Your task to perform on an android device: Open Yahoo.com Image 0: 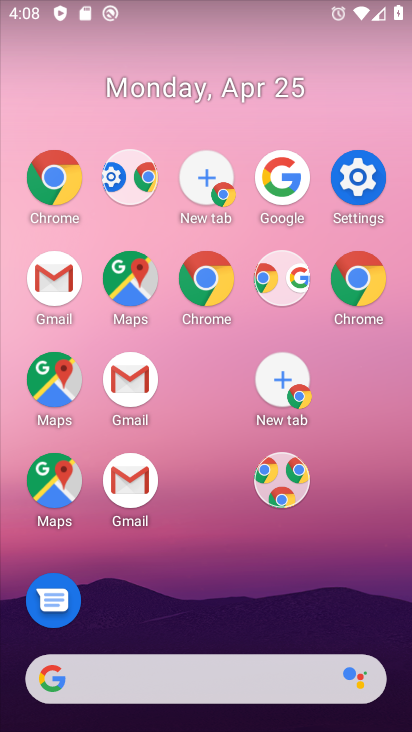
Step 0: click (212, 272)
Your task to perform on an android device: Open Yahoo.com Image 1: 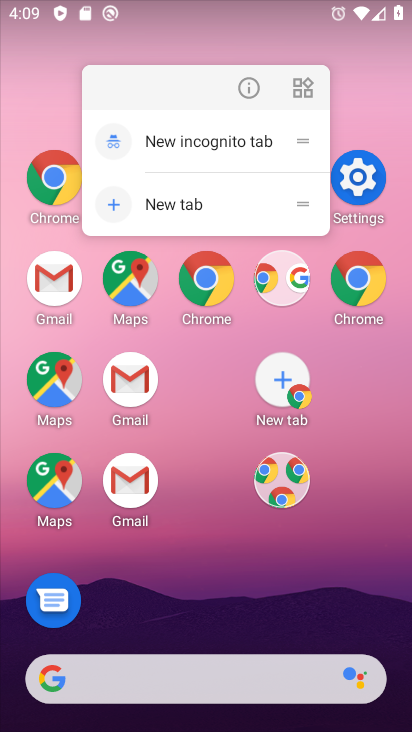
Step 1: click (96, 129)
Your task to perform on an android device: Open Yahoo.com Image 2: 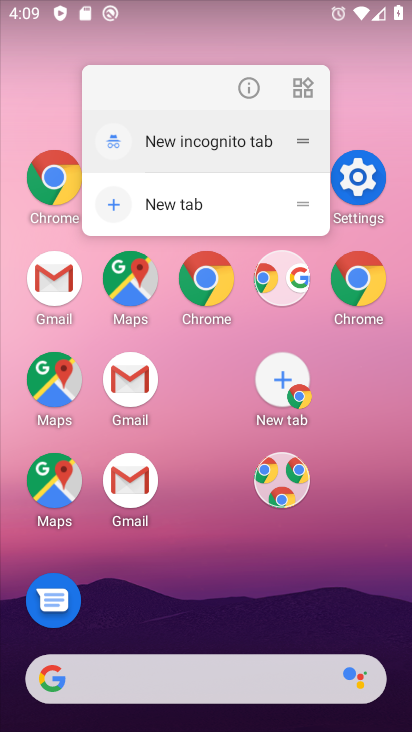
Step 2: click (152, 203)
Your task to perform on an android device: Open Yahoo.com Image 3: 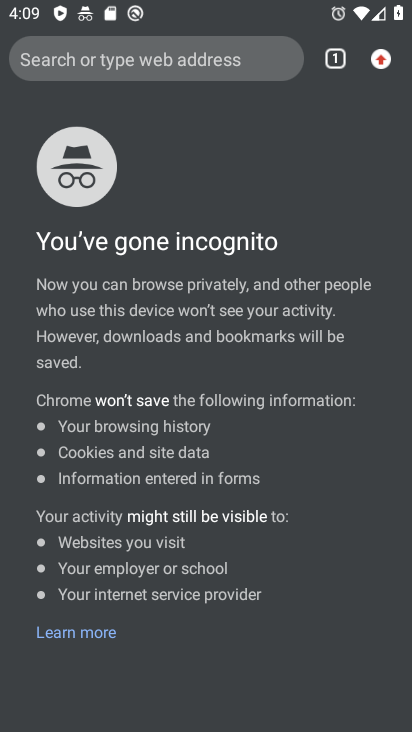
Step 3: drag from (380, 63) to (161, 191)
Your task to perform on an android device: Open Yahoo.com Image 4: 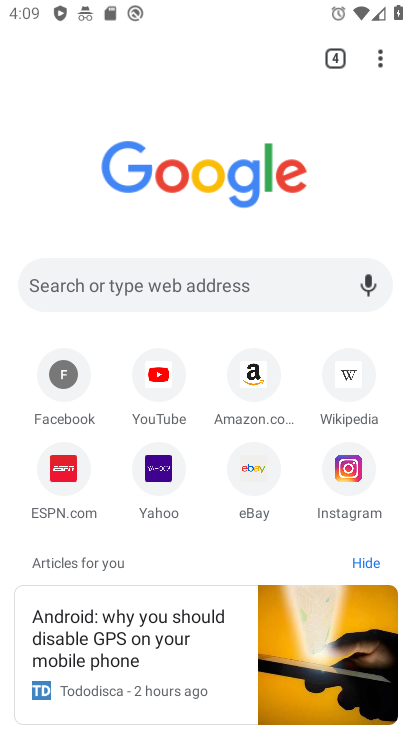
Step 4: click (157, 471)
Your task to perform on an android device: Open Yahoo.com Image 5: 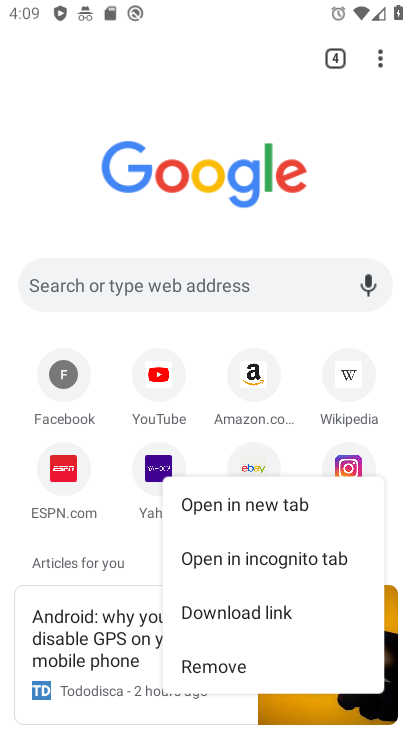
Step 5: click (157, 471)
Your task to perform on an android device: Open Yahoo.com Image 6: 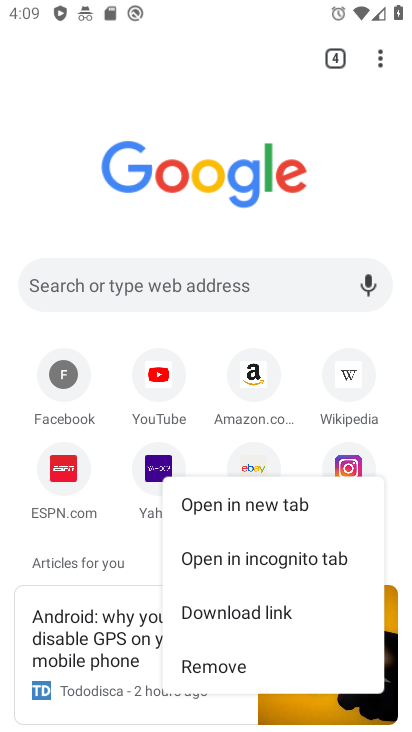
Step 6: click (157, 471)
Your task to perform on an android device: Open Yahoo.com Image 7: 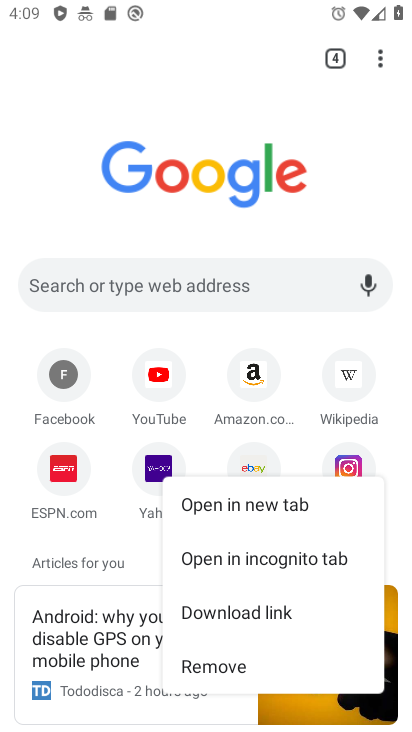
Step 7: click (216, 506)
Your task to perform on an android device: Open Yahoo.com Image 8: 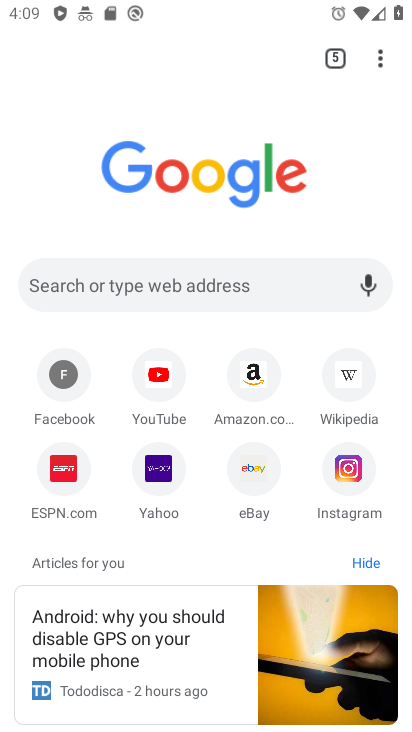
Step 8: click (158, 470)
Your task to perform on an android device: Open Yahoo.com Image 9: 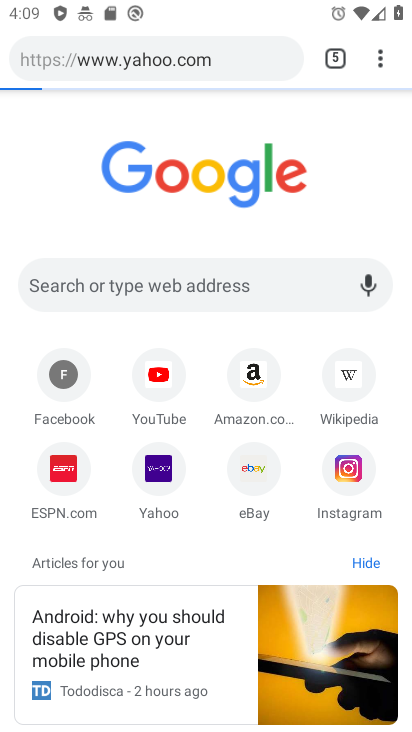
Step 9: click (158, 470)
Your task to perform on an android device: Open Yahoo.com Image 10: 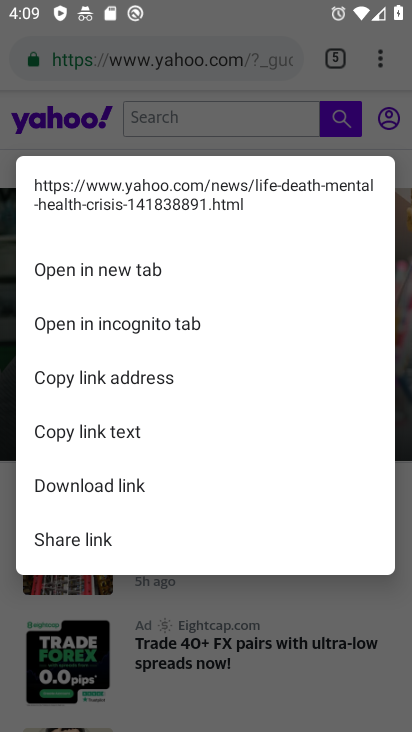
Step 10: task complete